Your task to perform on an android device: open chrome and create a bookmark for the current page Image 0: 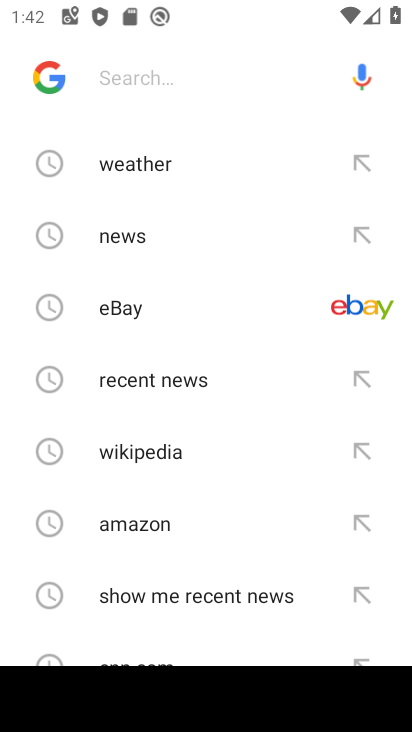
Step 0: press back button
Your task to perform on an android device: open chrome and create a bookmark for the current page Image 1: 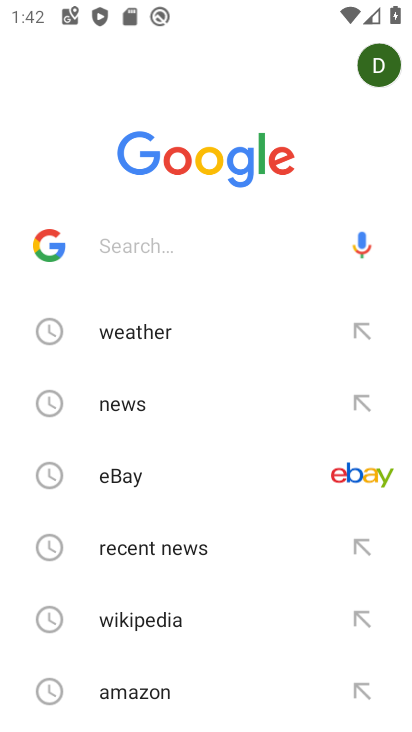
Step 1: press back button
Your task to perform on an android device: open chrome and create a bookmark for the current page Image 2: 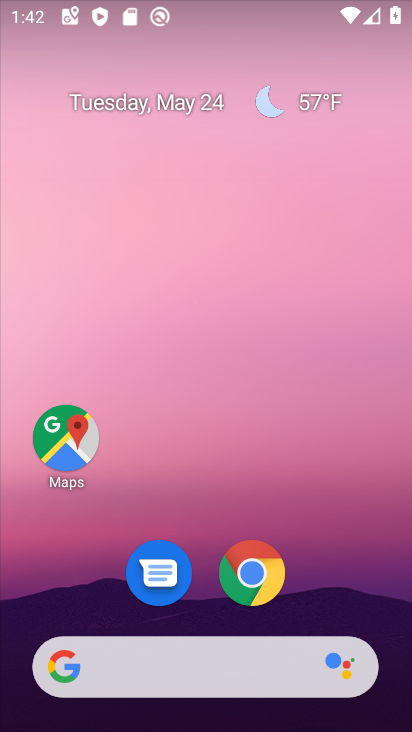
Step 2: press back button
Your task to perform on an android device: open chrome and create a bookmark for the current page Image 3: 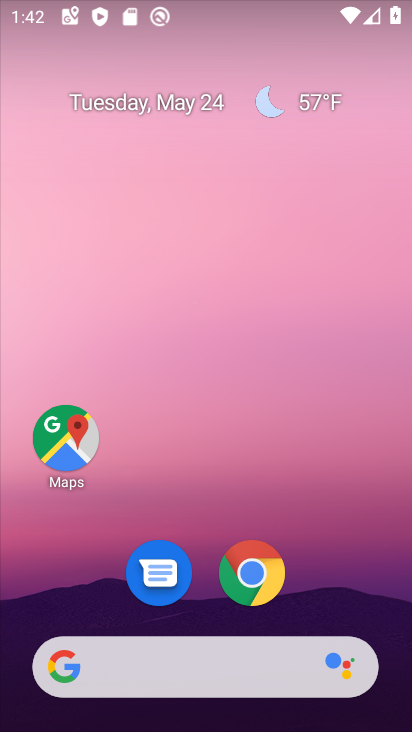
Step 3: click (257, 568)
Your task to perform on an android device: open chrome and create a bookmark for the current page Image 4: 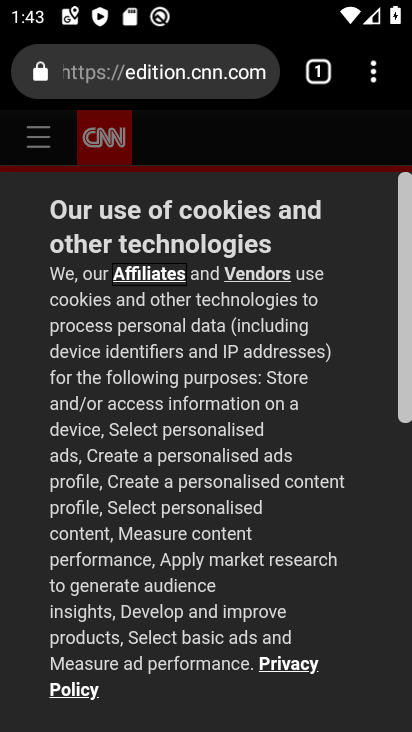
Step 4: click (376, 85)
Your task to perform on an android device: open chrome and create a bookmark for the current page Image 5: 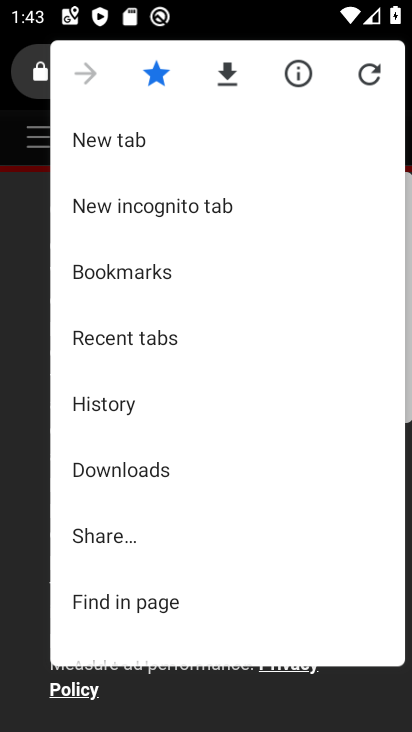
Step 5: task complete